Your task to perform on an android device: See recent photos Image 0: 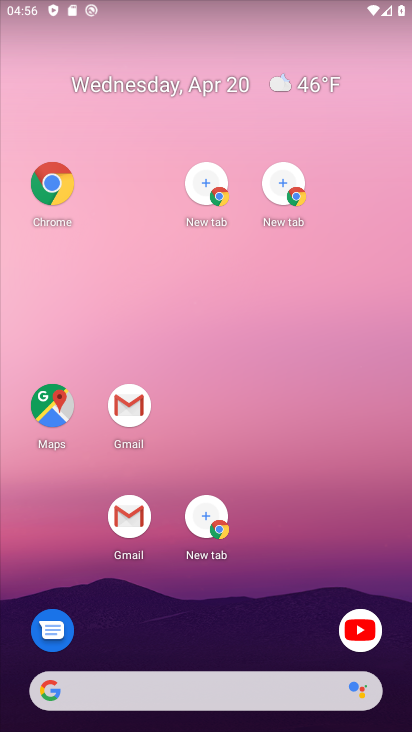
Step 0: drag from (44, 282) to (30, 163)
Your task to perform on an android device: See recent photos Image 1: 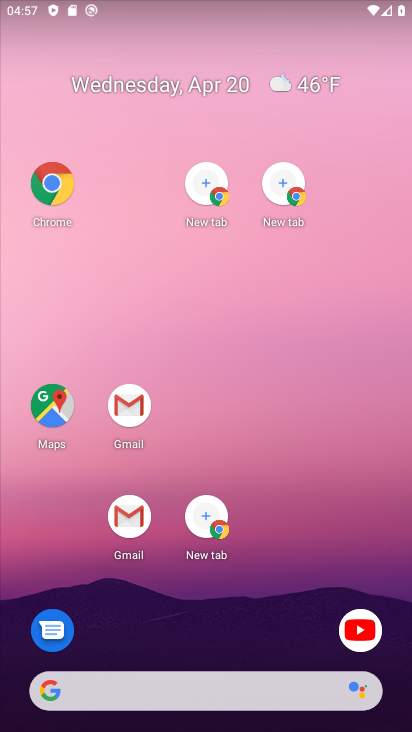
Step 1: drag from (176, 486) to (101, 110)
Your task to perform on an android device: See recent photos Image 2: 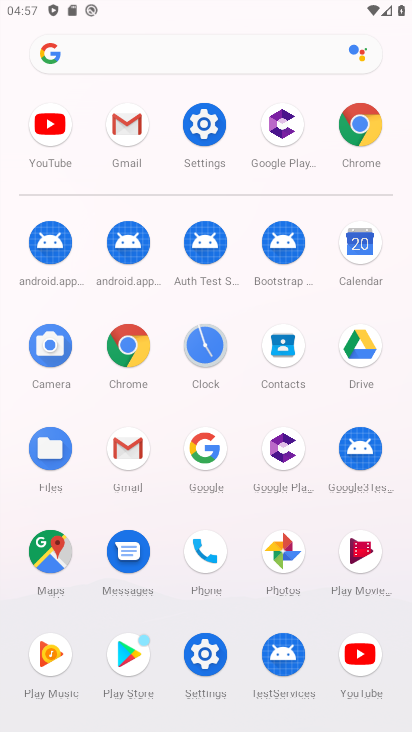
Step 2: click (269, 550)
Your task to perform on an android device: See recent photos Image 3: 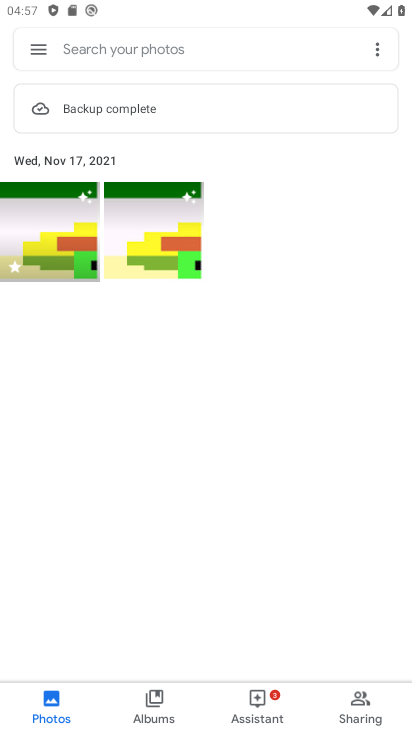
Step 3: task complete